Your task to perform on an android device: What's on my calendar tomorrow? Image 0: 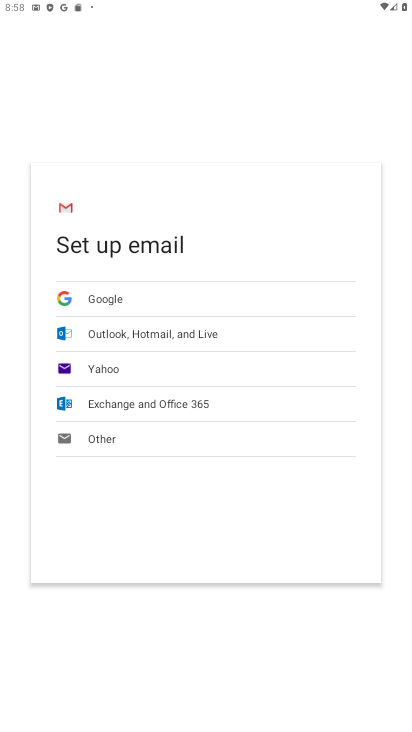
Step 0: drag from (245, 607) to (364, 182)
Your task to perform on an android device: What's on my calendar tomorrow? Image 1: 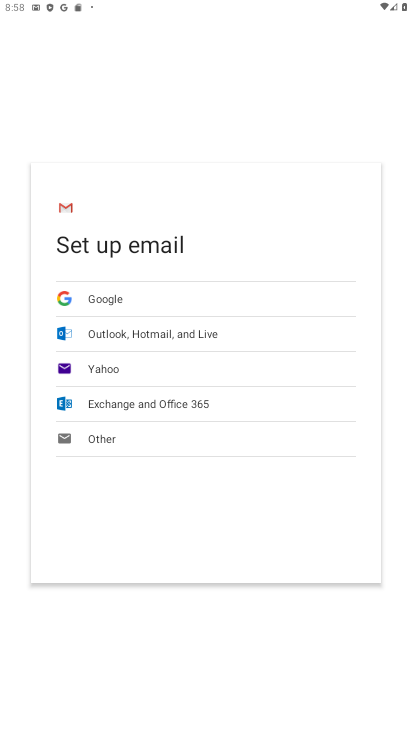
Step 1: press home button
Your task to perform on an android device: What's on my calendar tomorrow? Image 2: 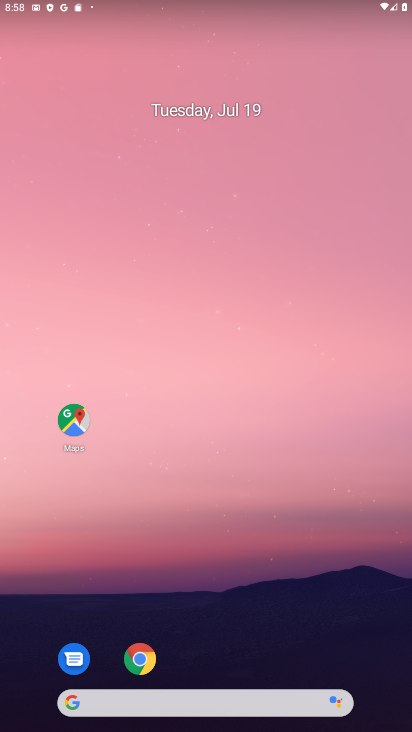
Step 2: drag from (257, 555) to (350, 153)
Your task to perform on an android device: What's on my calendar tomorrow? Image 3: 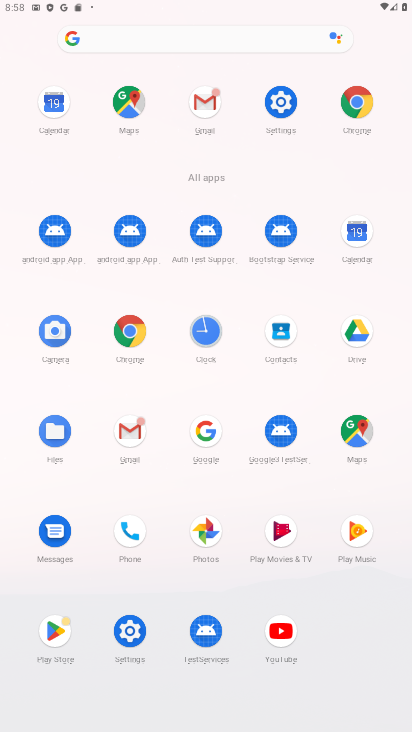
Step 3: click (355, 228)
Your task to perform on an android device: What's on my calendar tomorrow? Image 4: 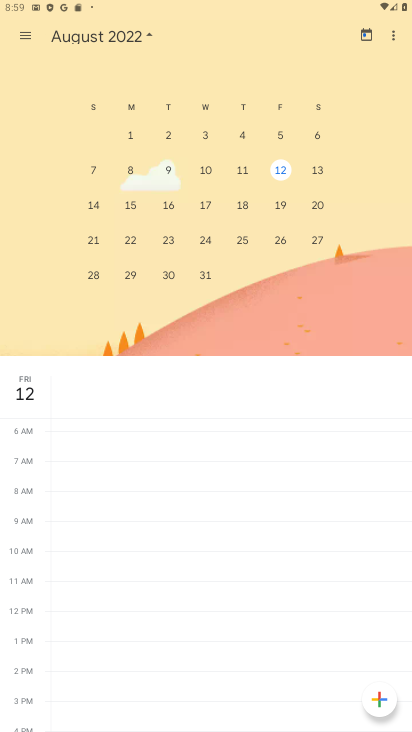
Step 4: drag from (156, 156) to (407, 185)
Your task to perform on an android device: What's on my calendar tomorrow? Image 5: 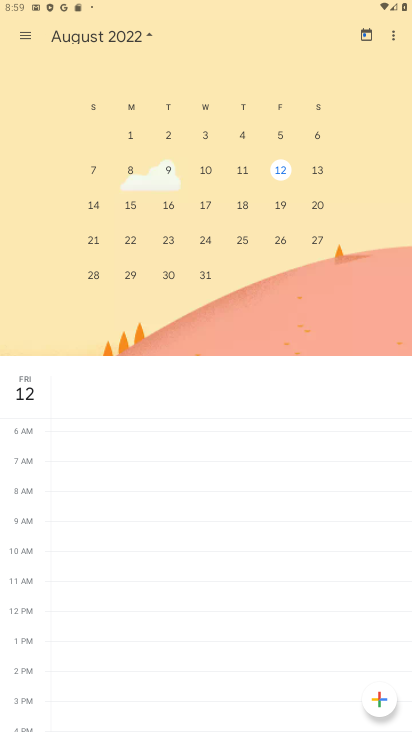
Step 5: drag from (59, 133) to (404, 207)
Your task to perform on an android device: What's on my calendar tomorrow? Image 6: 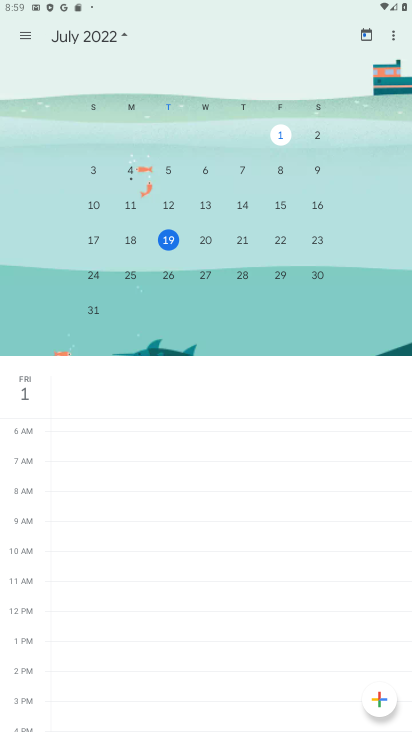
Step 6: click (238, 241)
Your task to perform on an android device: What's on my calendar tomorrow? Image 7: 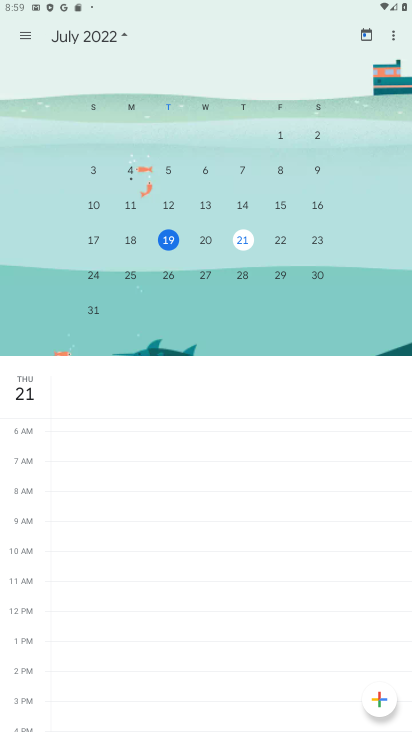
Step 7: click (238, 241)
Your task to perform on an android device: What's on my calendar tomorrow? Image 8: 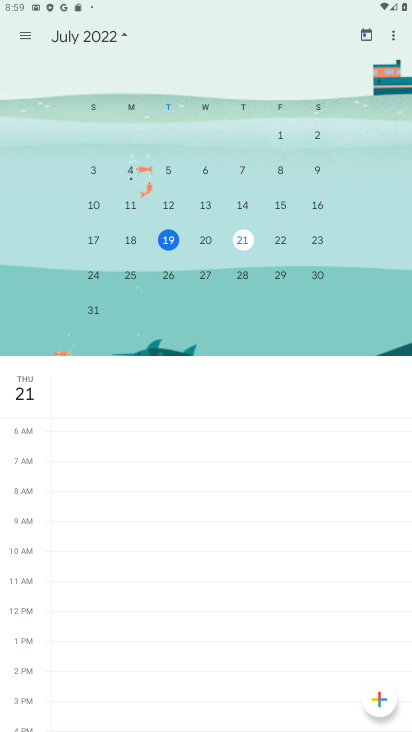
Step 8: task complete